Your task to perform on an android device: open app "LinkedIn" Image 0: 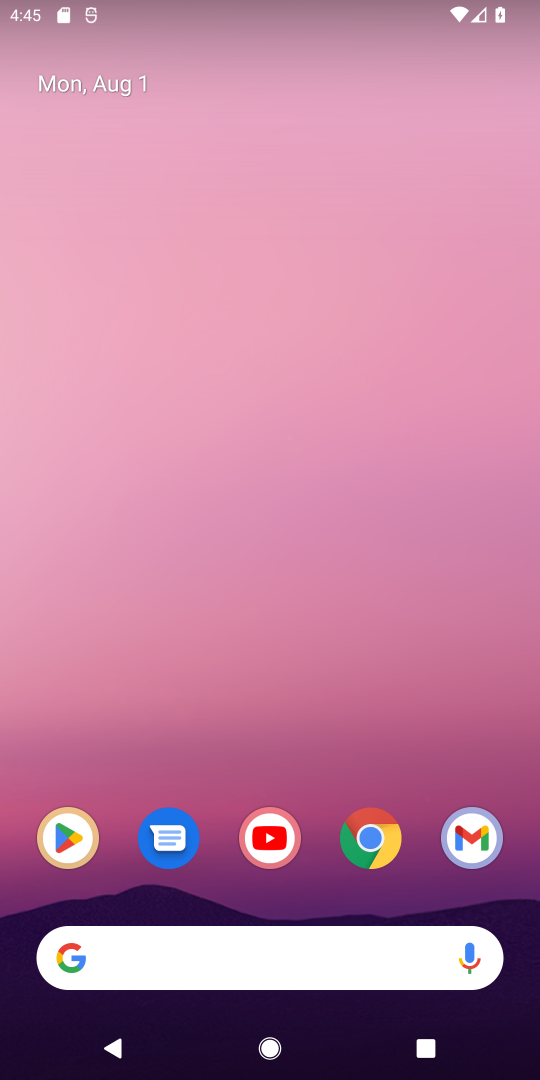
Step 0: click (61, 833)
Your task to perform on an android device: open app "LinkedIn" Image 1: 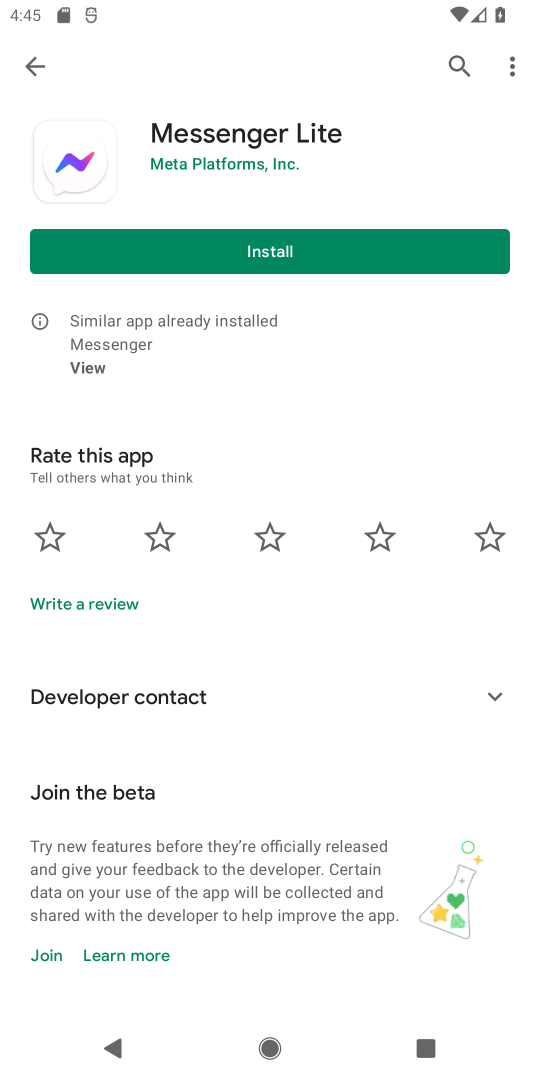
Step 1: click (456, 56)
Your task to perform on an android device: open app "LinkedIn" Image 2: 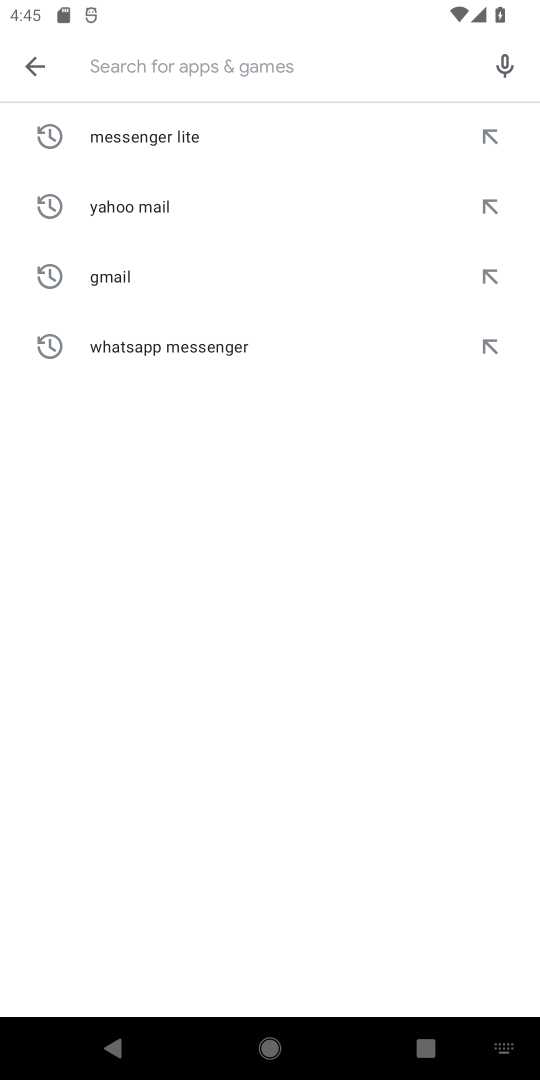
Step 2: type "LinkedIn"
Your task to perform on an android device: open app "LinkedIn" Image 3: 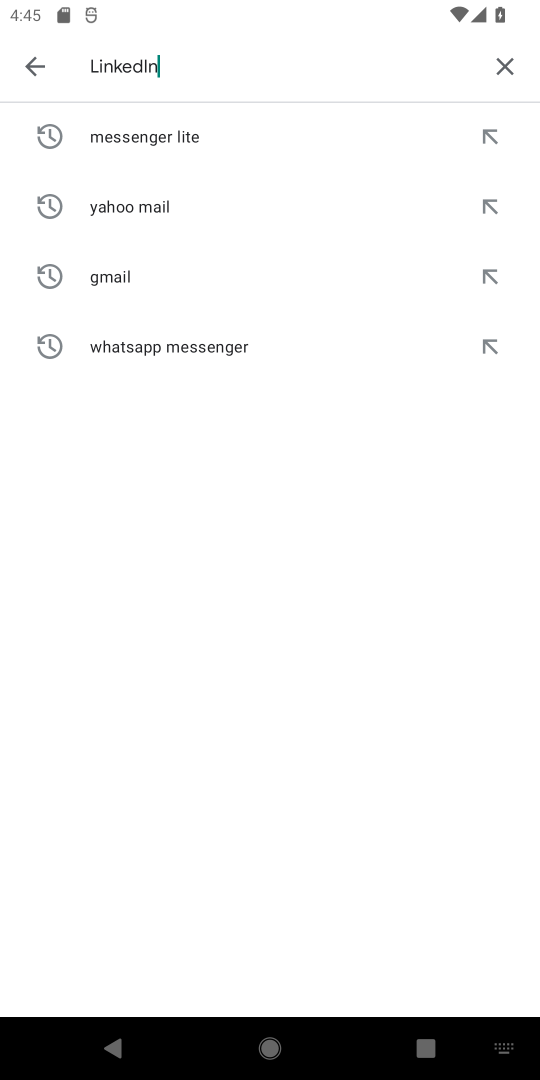
Step 3: type ""
Your task to perform on an android device: open app "LinkedIn" Image 4: 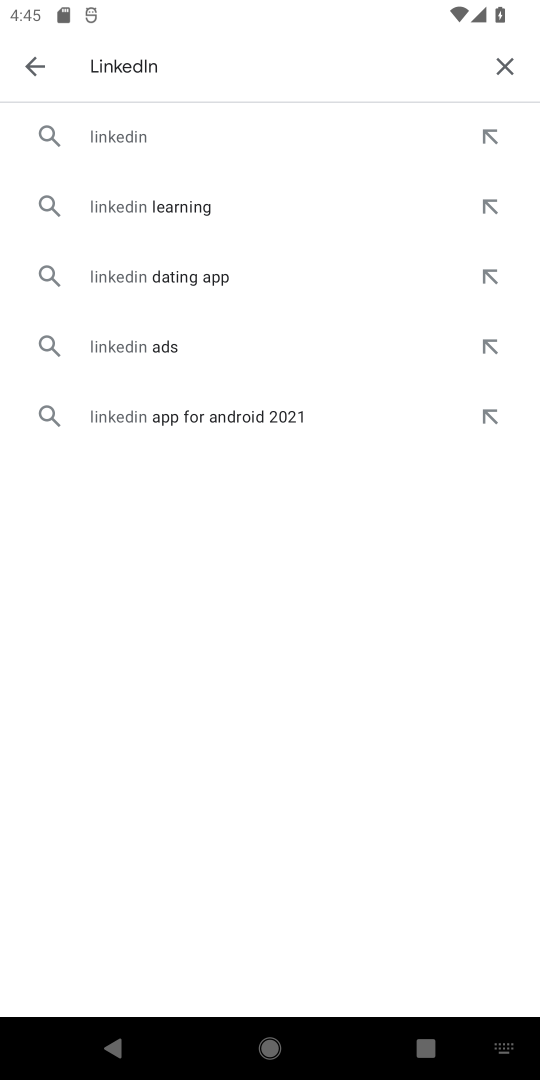
Step 4: click (150, 119)
Your task to perform on an android device: open app "LinkedIn" Image 5: 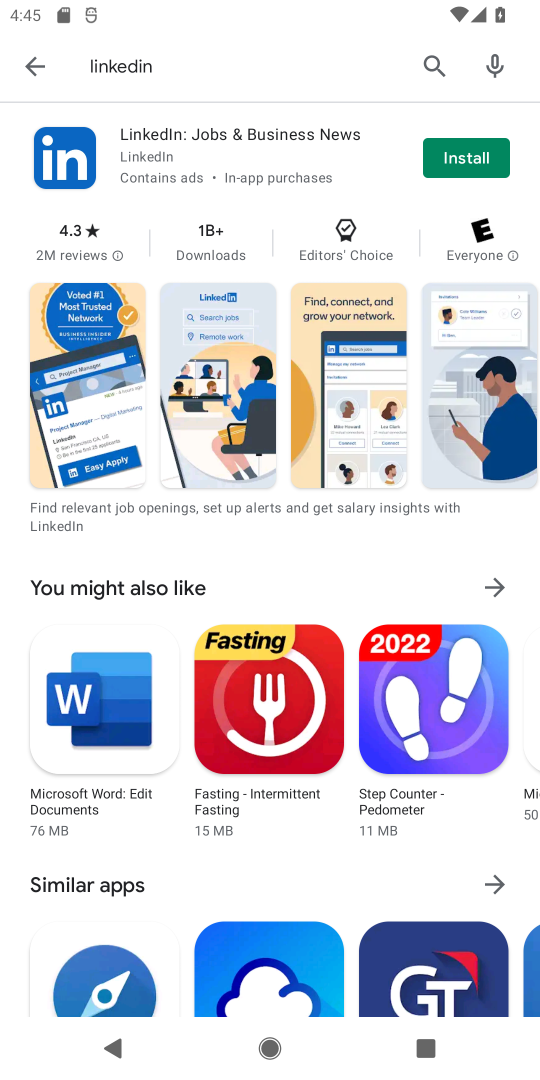
Step 5: task complete